Your task to perform on an android device: What is the news today? Image 0: 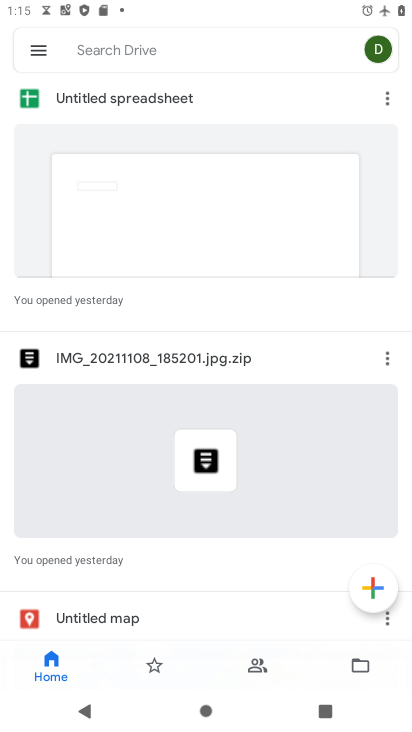
Step 0: press home button
Your task to perform on an android device: What is the news today? Image 1: 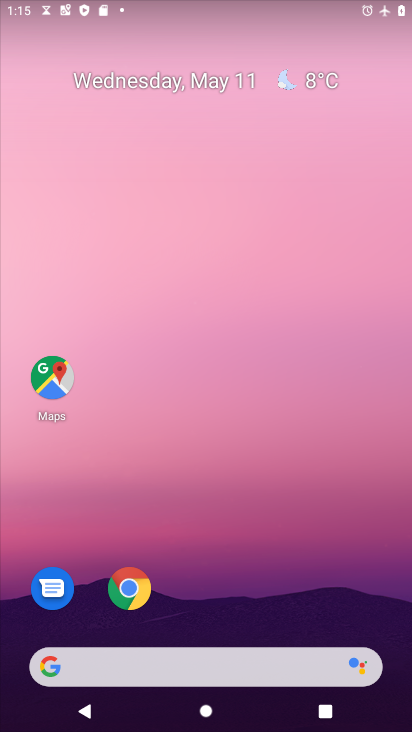
Step 1: task complete